Your task to perform on an android device: Go to network settings Image 0: 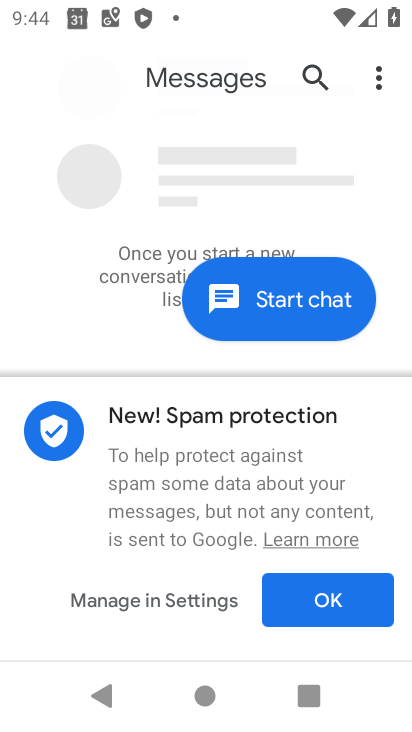
Step 0: press home button
Your task to perform on an android device: Go to network settings Image 1: 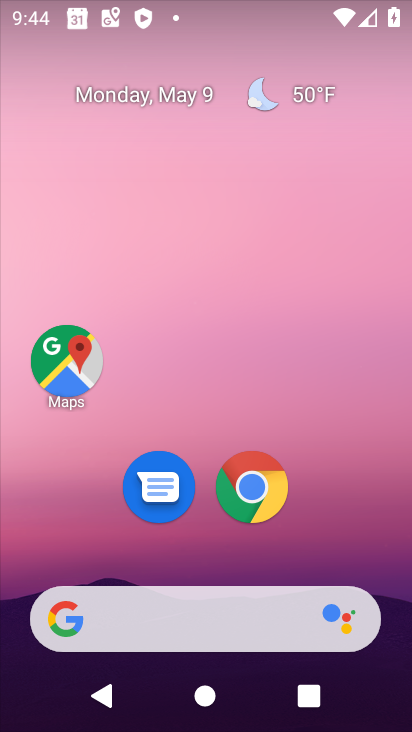
Step 1: drag from (21, 670) to (399, 97)
Your task to perform on an android device: Go to network settings Image 2: 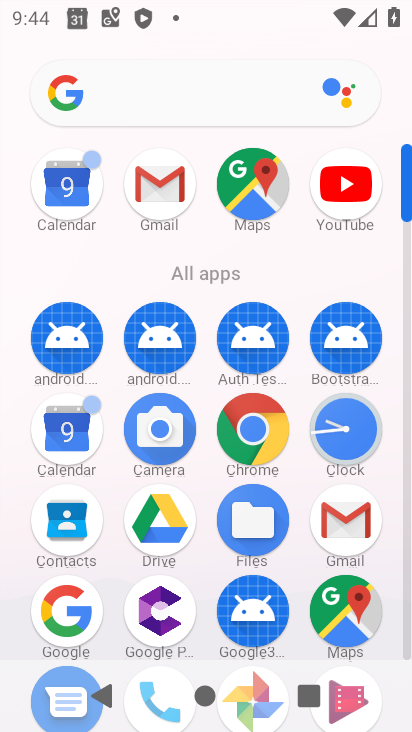
Step 2: drag from (204, 627) to (367, 215)
Your task to perform on an android device: Go to network settings Image 3: 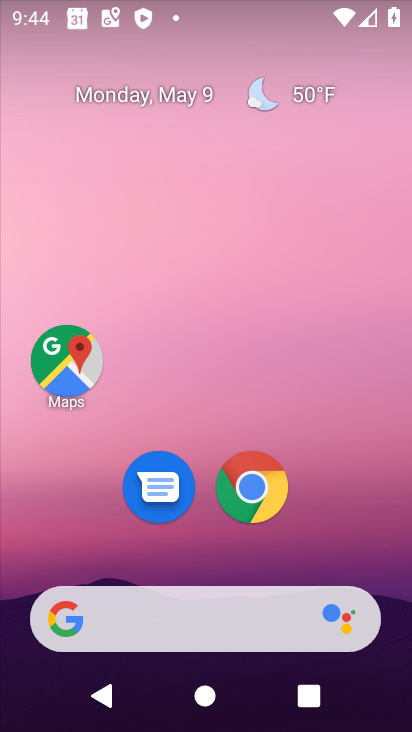
Step 3: drag from (14, 704) to (311, 116)
Your task to perform on an android device: Go to network settings Image 4: 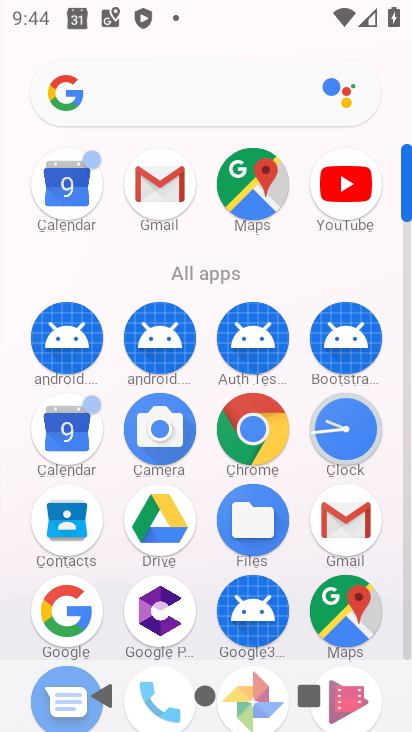
Step 4: drag from (11, 584) to (273, 180)
Your task to perform on an android device: Go to network settings Image 5: 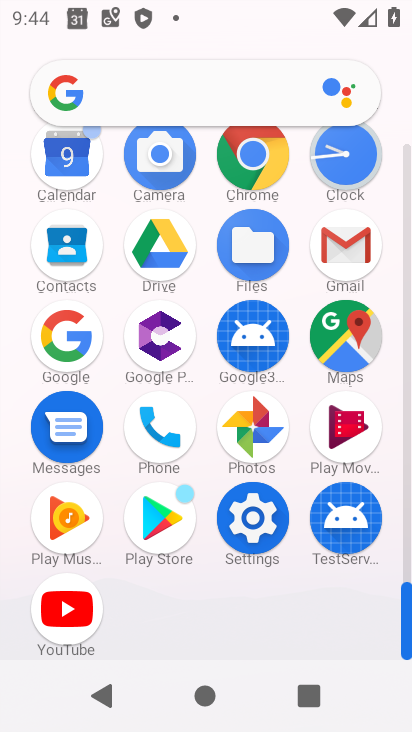
Step 5: click (241, 517)
Your task to perform on an android device: Go to network settings Image 6: 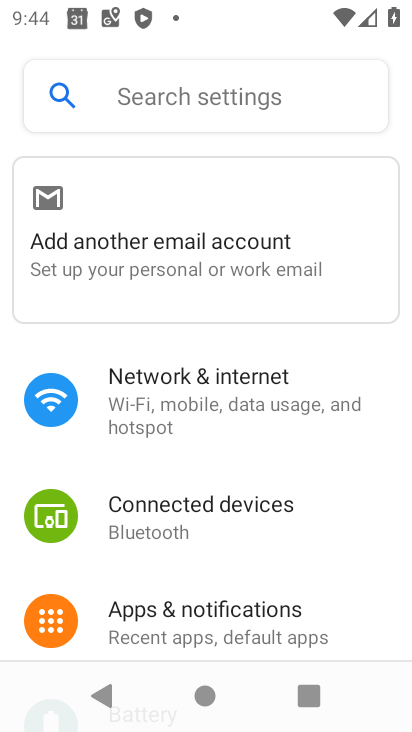
Step 6: click (172, 410)
Your task to perform on an android device: Go to network settings Image 7: 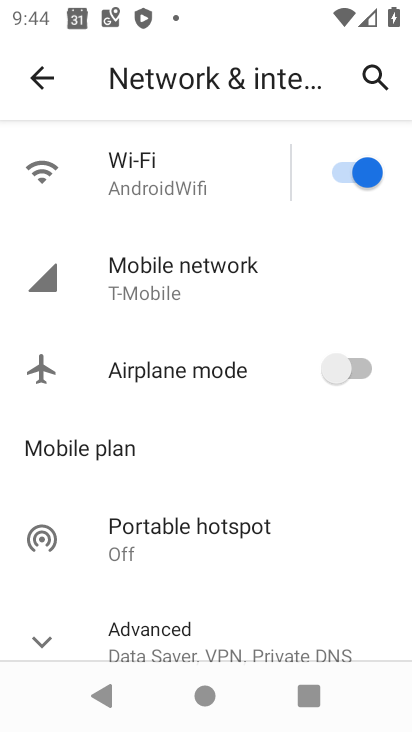
Step 7: click (191, 274)
Your task to perform on an android device: Go to network settings Image 8: 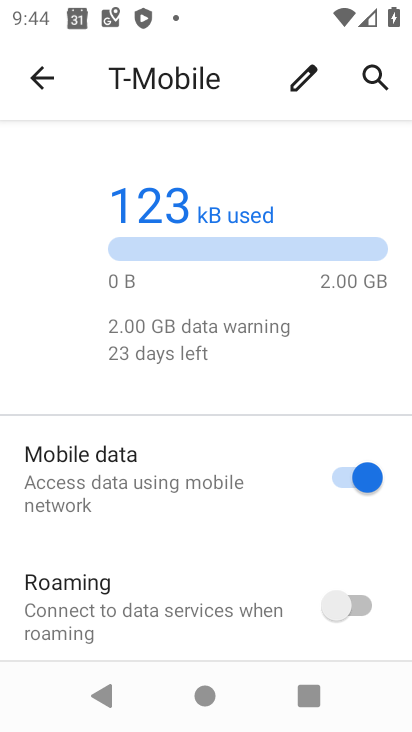
Step 8: task complete